Your task to perform on an android device: change the clock display to digital Image 0: 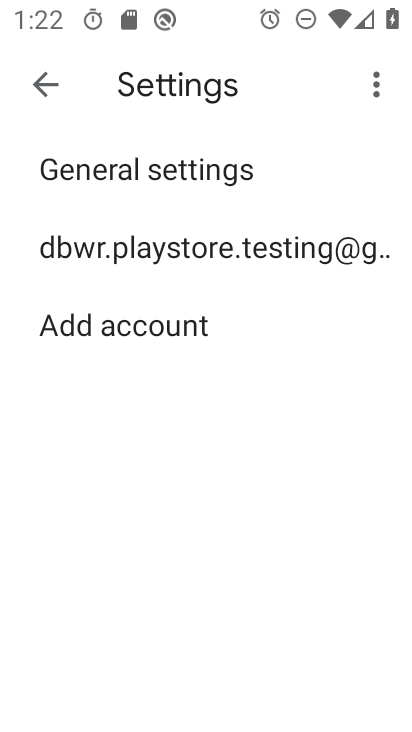
Step 0: press back button
Your task to perform on an android device: change the clock display to digital Image 1: 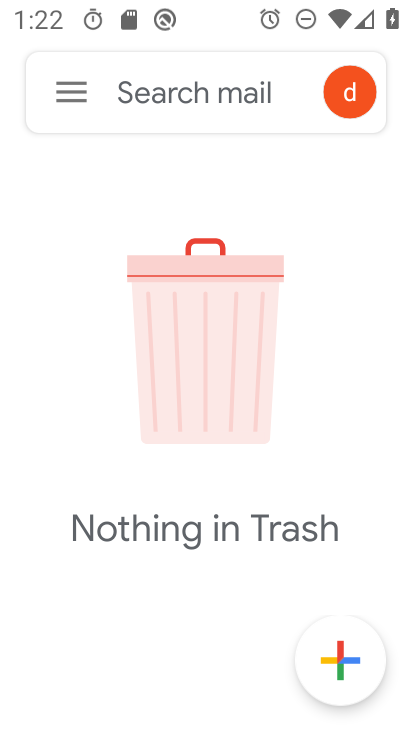
Step 1: drag from (19, 521) to (142, 161)
Your task to perform on an android device: change the clock display to digital Image 2: 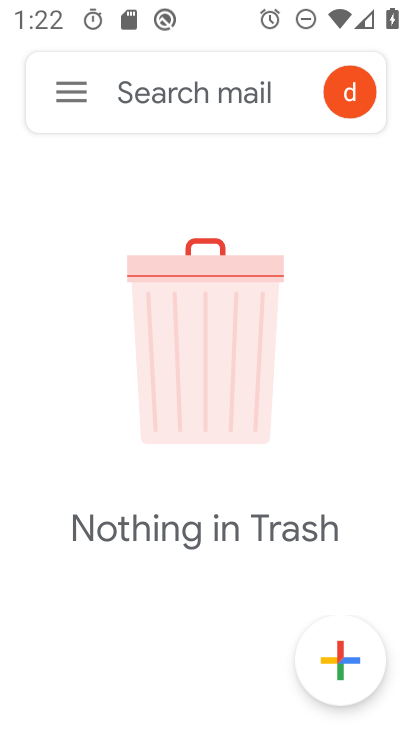
Step 2: press home button
Your task to perform on an android device: change the clock display to digital Image 3: 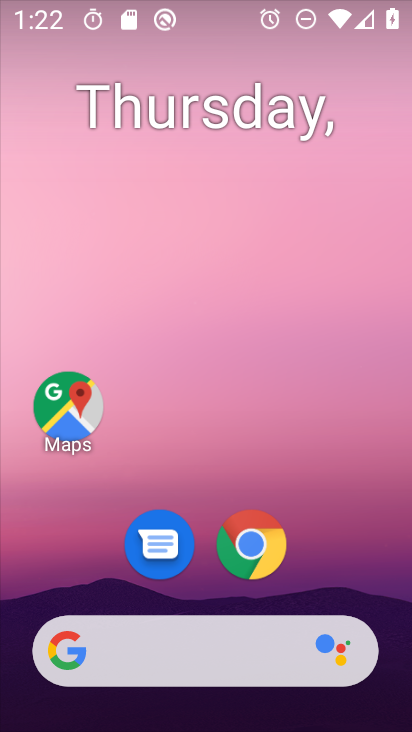
Step 3: drag from (17, 659) to (236, 152)
Your task to perform on an android device: change the clock display to digital Image 4: 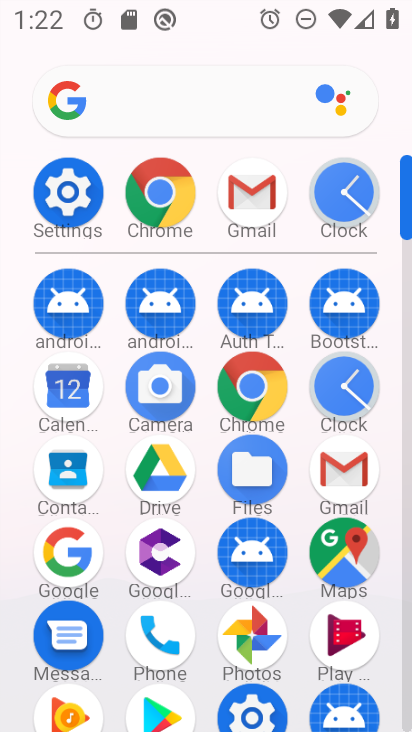
Step 4: click (348, 394)
Your task to perform on an android device: change the clock display to digital Image 5: 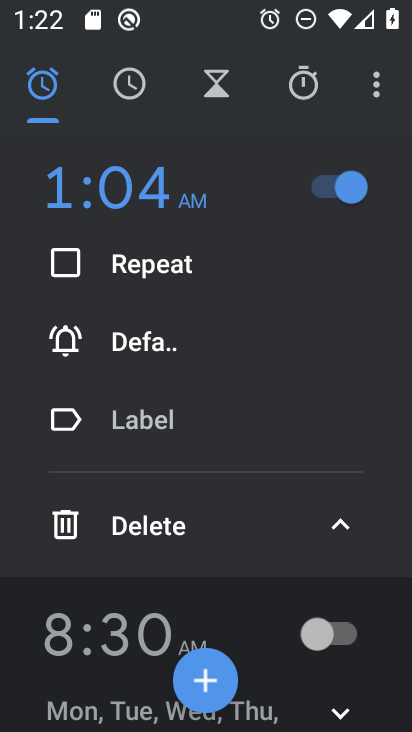
Step 5: click (367, 84)
Your task to perform on an android device: change the clock display to digital Image 6: 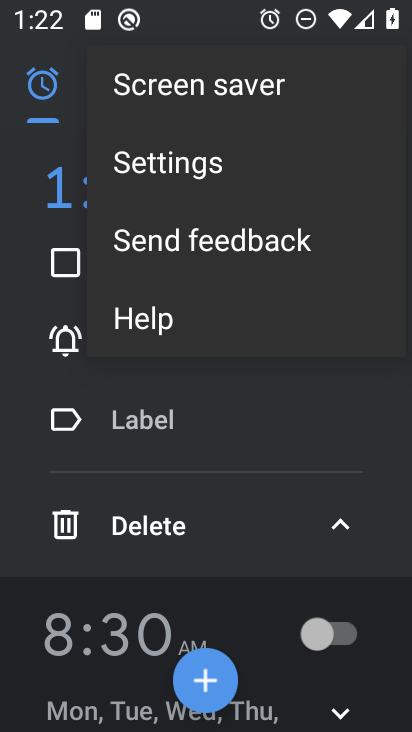
Step 6: click (299, 184)
Your task to perform on an android device: change the clock display to digital Image 7: 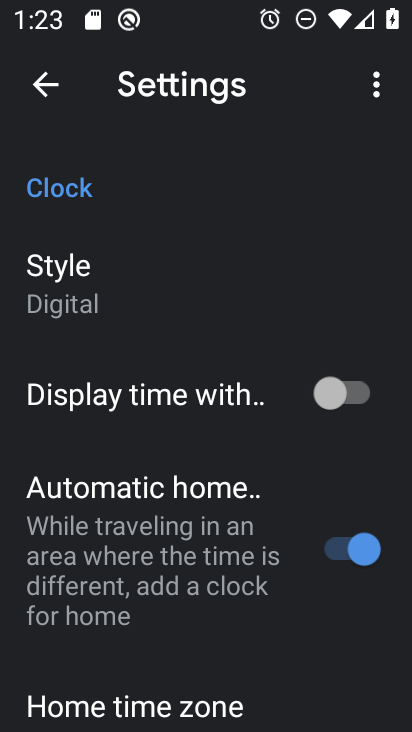
Step 7: task complete